Your task to perform on an android device: Open Reddit.com Image 0: 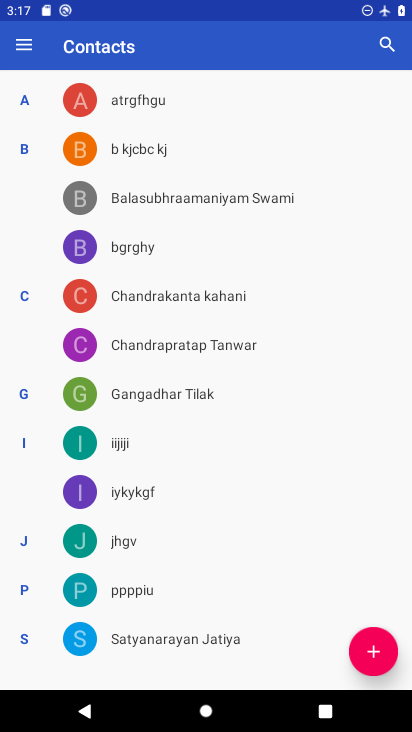
Step 0: press home button
Your task to perform on an android device: Open Reddit.com Image 1: 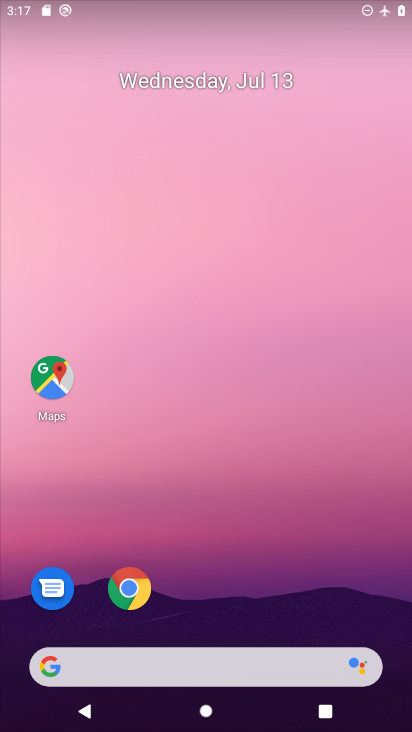
Step 1: click (127, 569)
Your task to perform on an android device: Open Reddit.com Image 2: 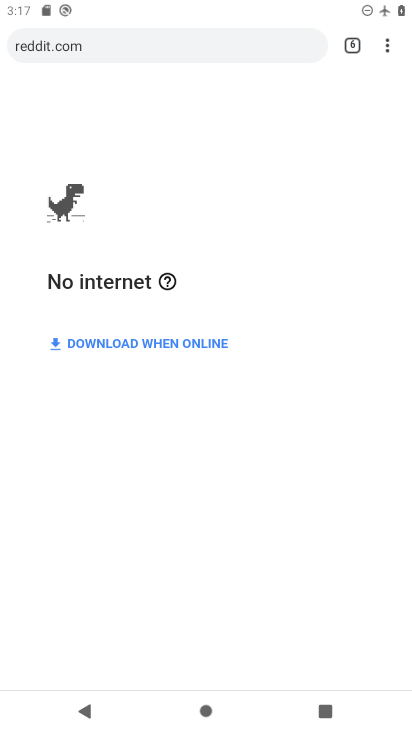
Step 2: task complete